Your task to perform on an android device: open a new tab in the chrome app Image 0: 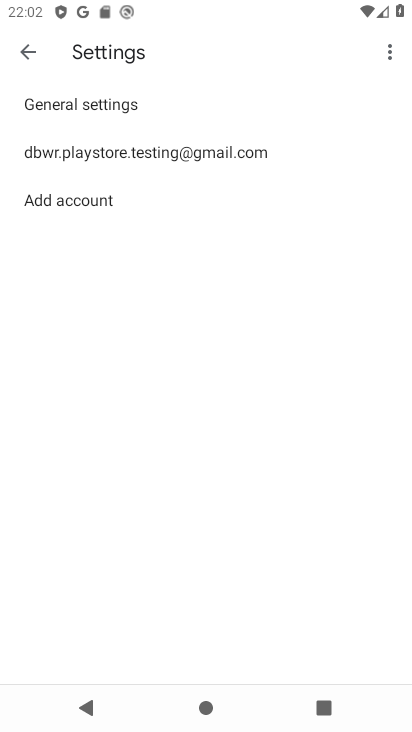
Step 0: press home button
Your task to perform on an android device: open a new tab in the chrome app Image 1: 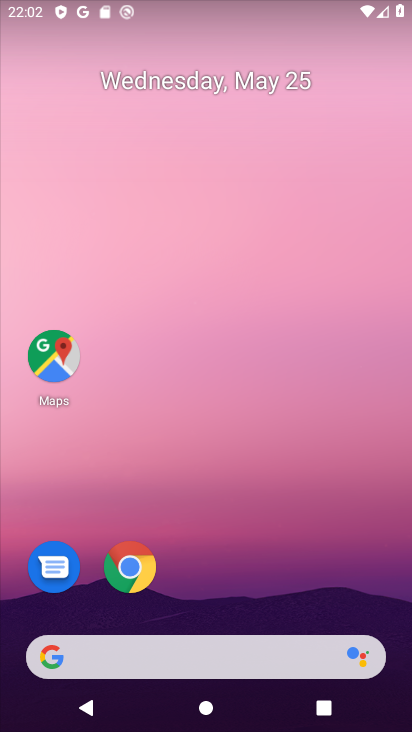
Step 1: click (129, 575)
Your task to perform on an android device: open a new tab in the chrome app Image 2: 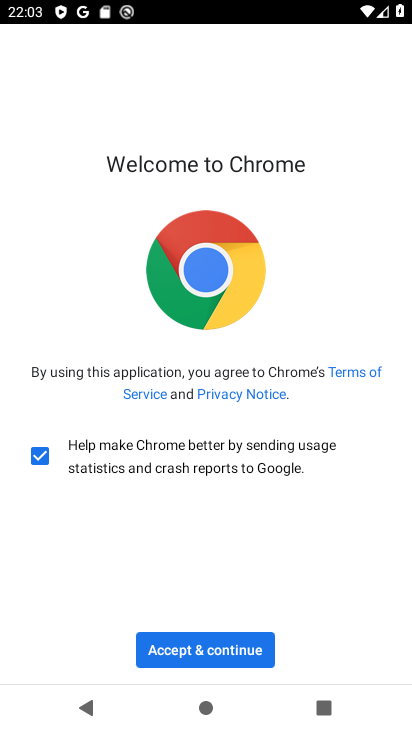
Step 2: click (213, 646)
Your task to perform on an android device: open a new tab in the chrome app Image 3: 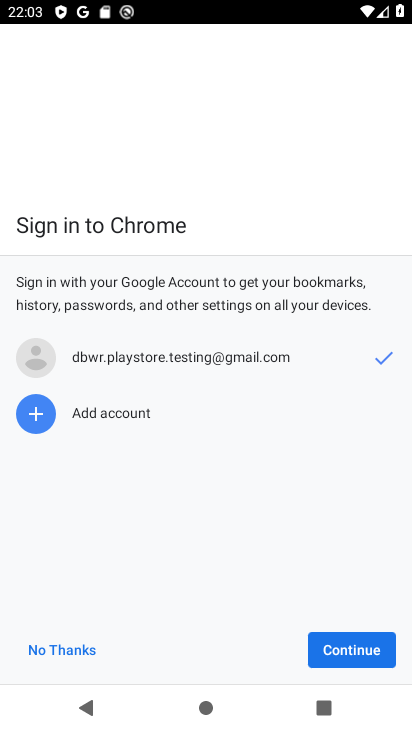
Step 3: click (362, 639)
Your task to perform on an android device: open a new tab in the chrome app Image 4: 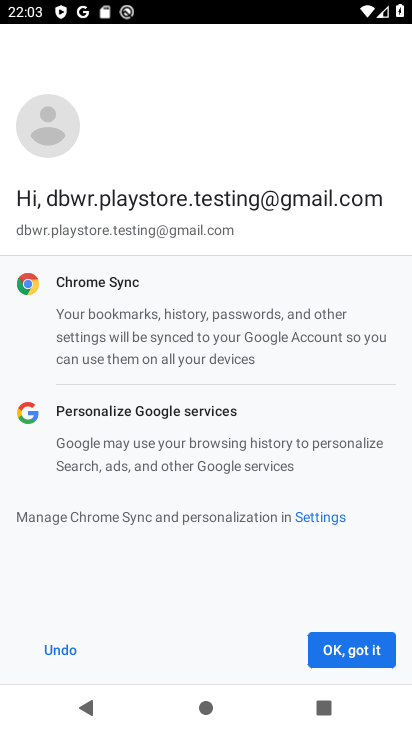
Step 4: click (360, 638)
Your task to perform on an android device: open a new tab in the chrome app Image 5: 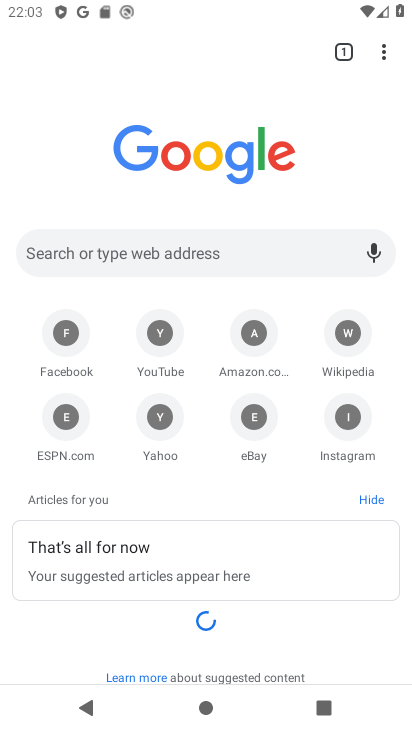
Step 5: click (375, 65)
Your task to perform on an android device: open a new tab in the chrome app Image 6: 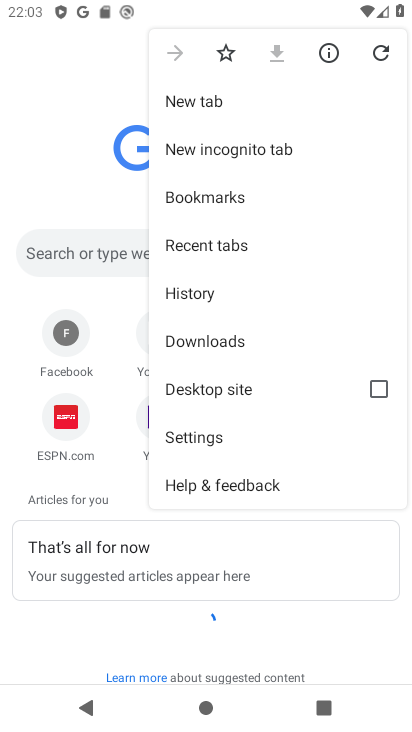
Step 6: click (232, 101)
Your task to perform on an android device: open a new tab in the chrome app Image 7: 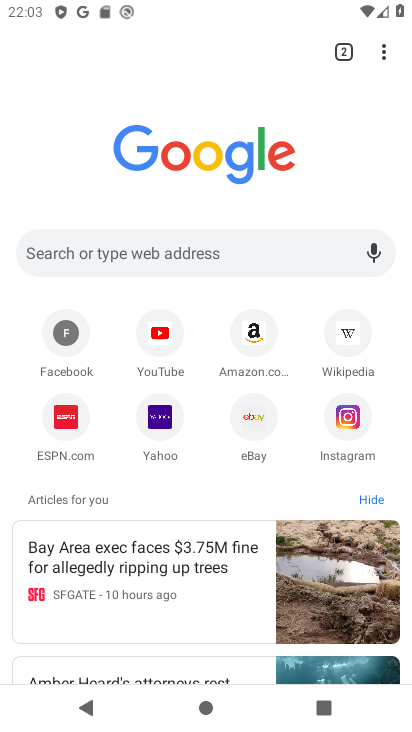
Step 7: task complete